Your task to perform on an android device: empty trash in google photos Image 0: 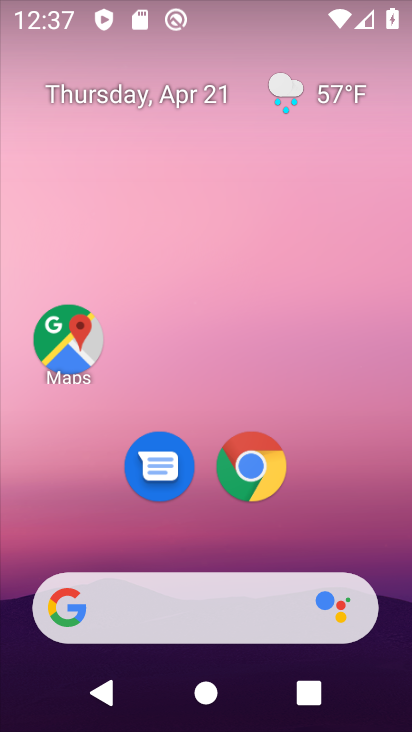
Step 0: drag from (339, 553) to (406, 93)
Your task to perform on an android device: empty trash in google photos Image 1: 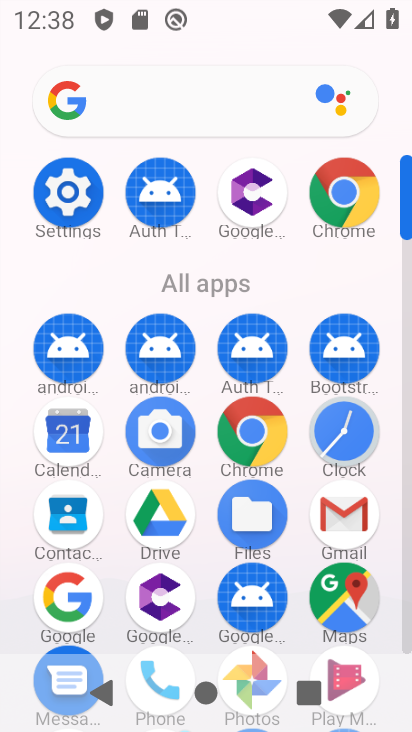
Step 1: drag from (376, 536) to (410, 247)
Your task to perform on an android device: empty trash in google photos Image 2: 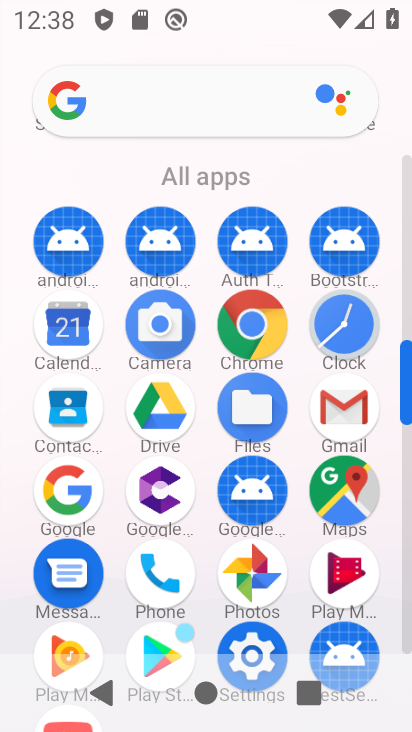
Step 2: click (268, 573)
Your task to perform on an android device: empty trash in google photos Image 3: 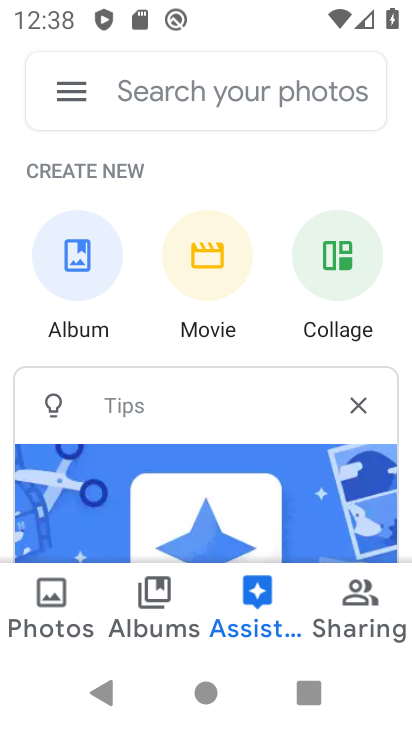
Step 3: click (70, 93)
Your task to perform on an android device: empty trash in google photos Image 4: 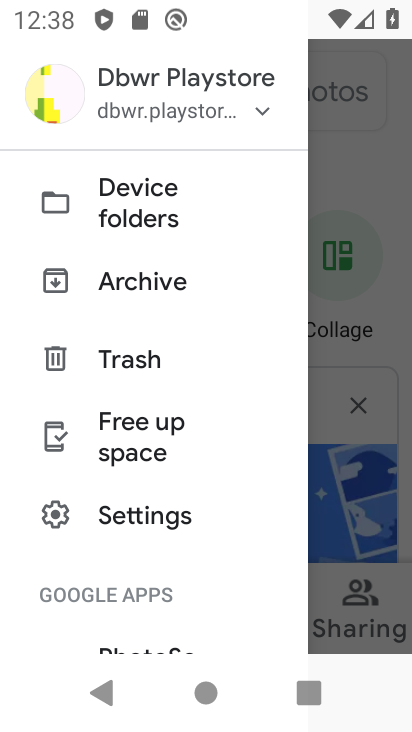
Step 4: click (93, 355)
Your task to perform on an android device: empty trash in google photos Image 5: 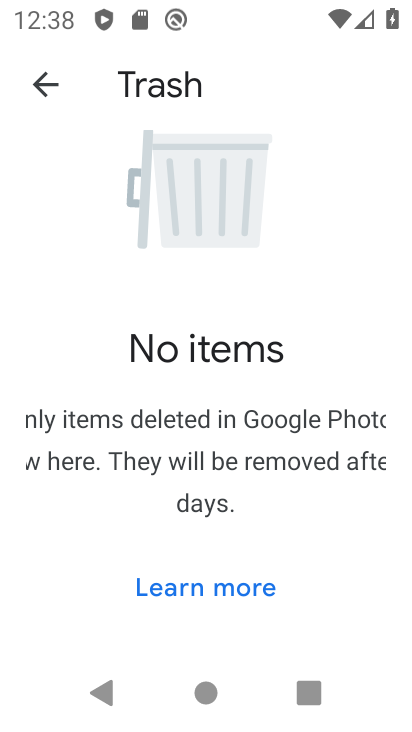
Step 5: task complete